Your task to perform on an android device: turn off improve location accuracy Image 0: 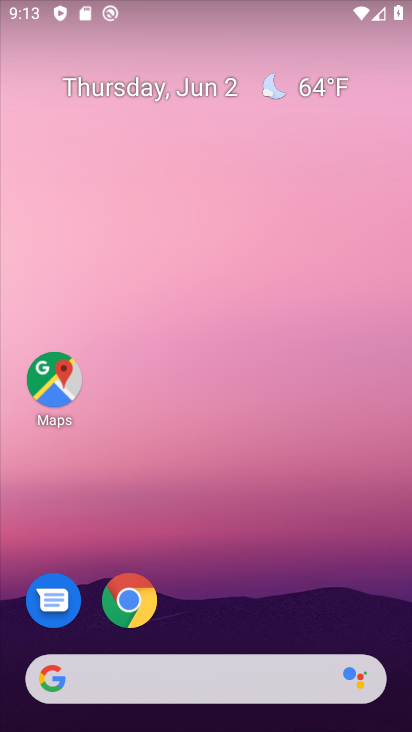
Step 0: drag from (222, 606) to (254, 48)
Your task to perform on an android device: turn off improve location accuracy Image 1: 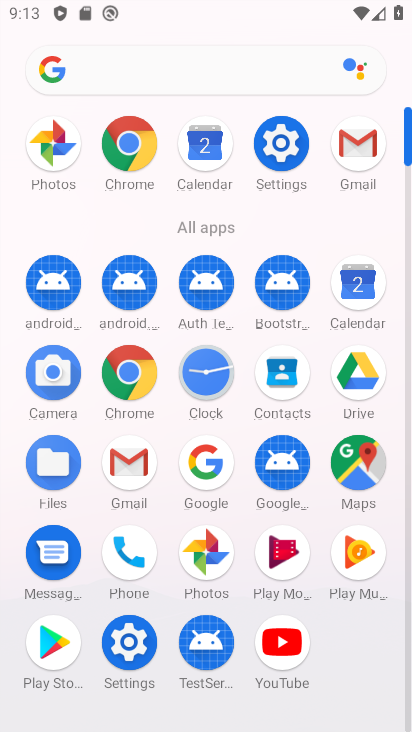
Step 1: click (130, 642)
Your task to perform on an android device: turn off improve location accuracy Image 2: 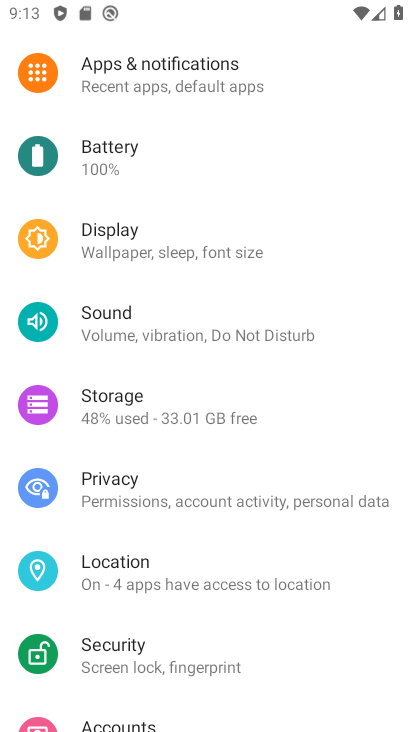
Step 2: click (188, 571)
Your task to perform on an android device: turn off improve location accuracy Image 3: 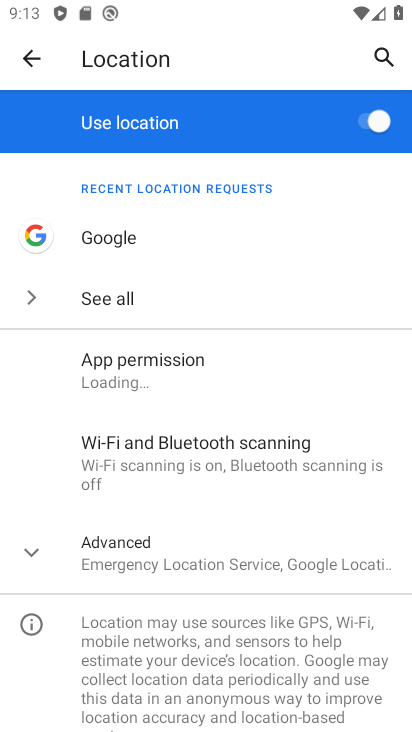
Step 3: click (114, 557)
Your task to perform on an android device: turn off improve location accuracy Image 4: 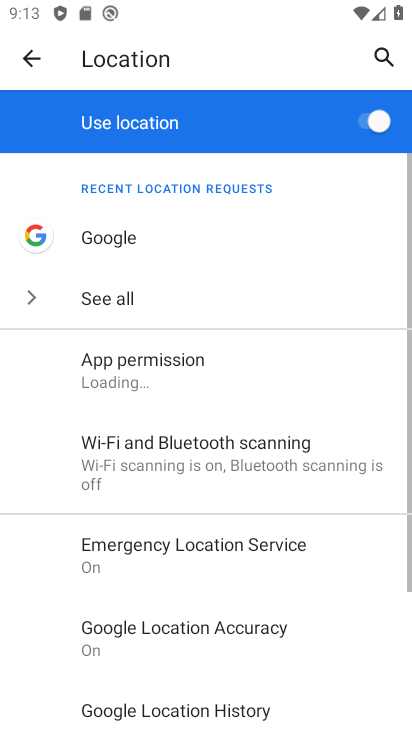
Step 4: drag from (264, 637) to (256, 389)
Your task to perform on an android device: turn off improve location accuracy Image 5: 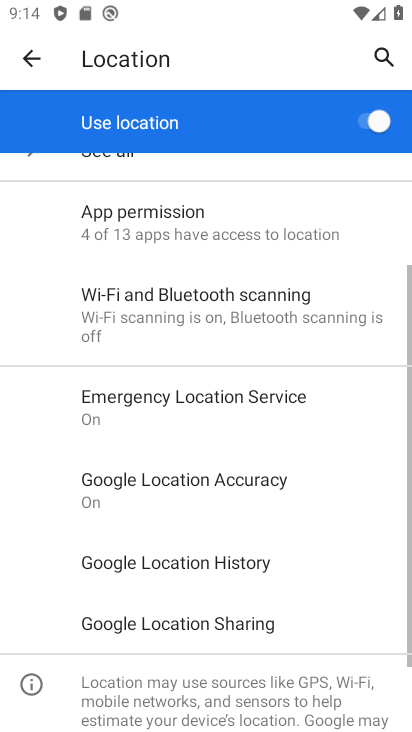
Step 5: click (96, 480)
Your task to perform on an android device: turn off improve location accuracy Image 6: 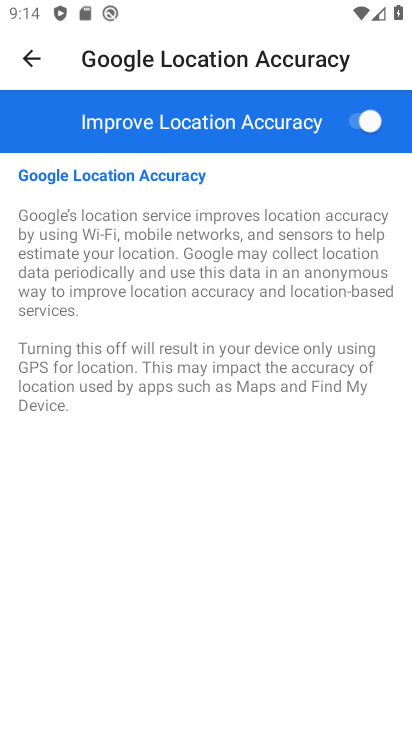
Step 6: click (367, 133)
Your task to perform on an android device: turn off improve location accuracy Image 7: 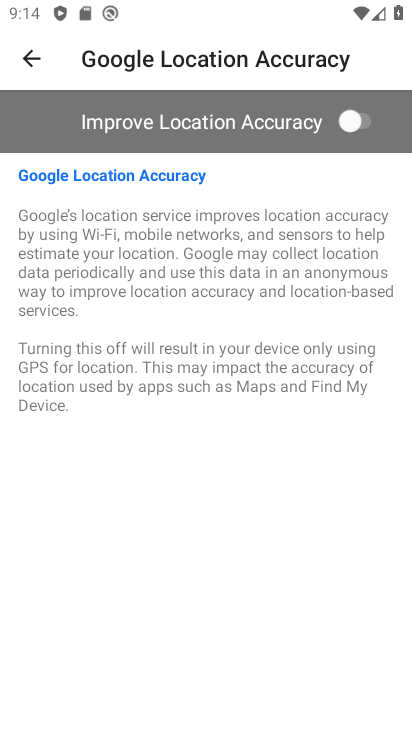
Step 7: task complete